Your task to perform on an android device: check android version Image 0: 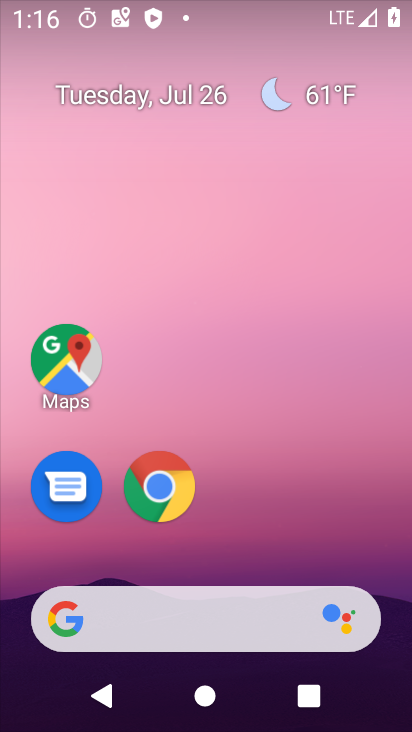
Step 0: press home button
Your task to perform on an android device: check android version Image 1: 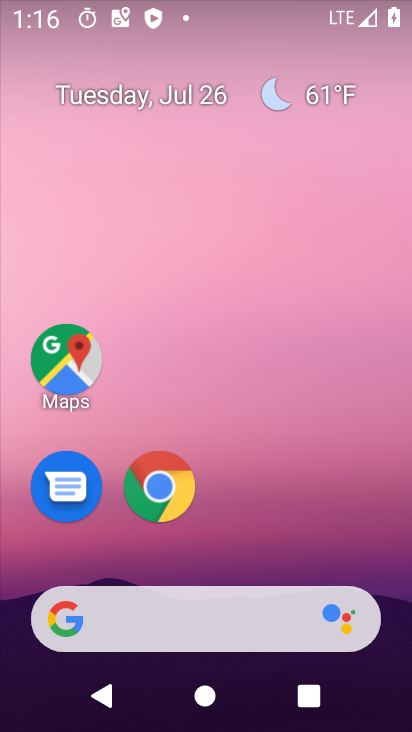
Step 1: drag from (329, 535) to (327, 110)
Your task to perform on an android device: check android version Image 2: 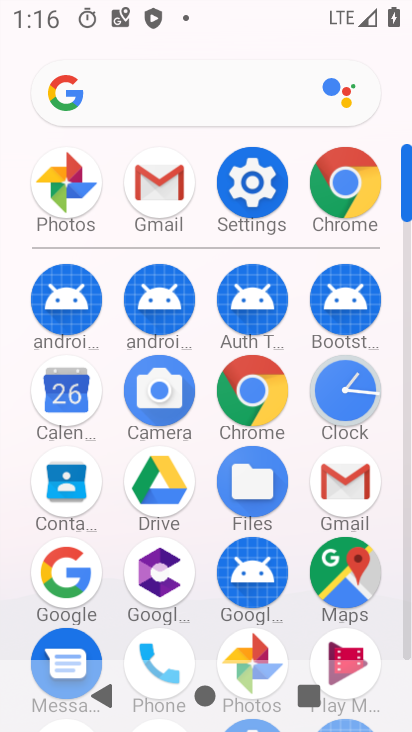
Step 2: click (262, 189)
Your task to perform on an android device: check android version Image 3: 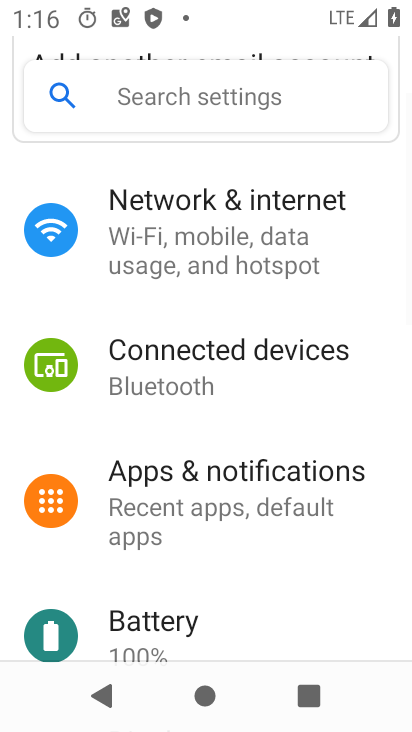
Step 3: drag from (324, 512) to (321, 370)
Your task to perform on an android device: check android version Image 4: 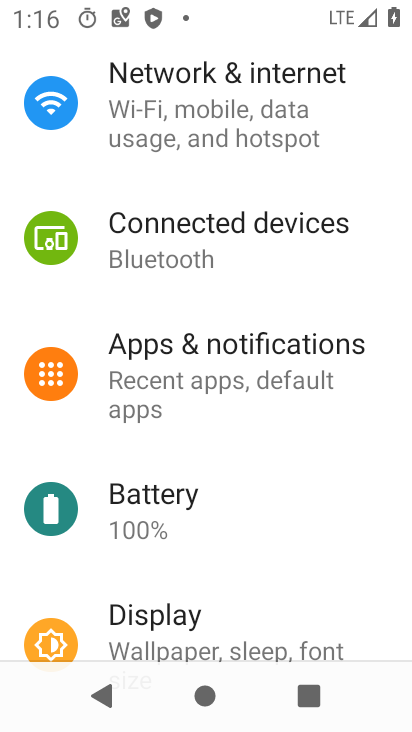
Step 4: drag from (321, 509) to (321, 379)
Your task to perform on an android device: check android version Image 5: 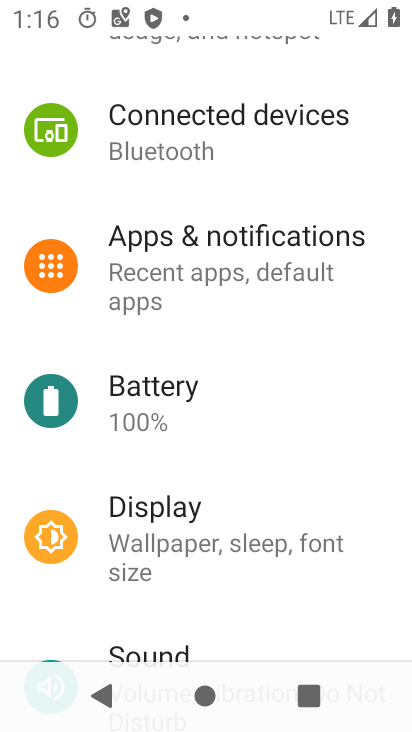
Step 5: drag from (321, 569) to (319, 446)
Your task to perform on an android device: check android version Image 6: 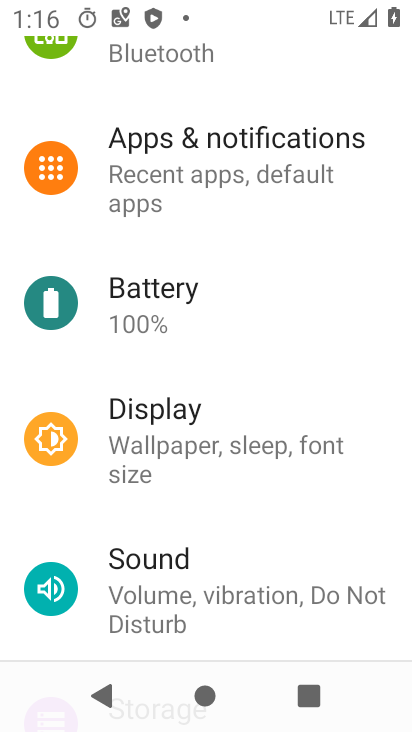
Step 6: drag from (318, 583) to (317, 386)
Your task to perform on an android device: check android version Image 7: 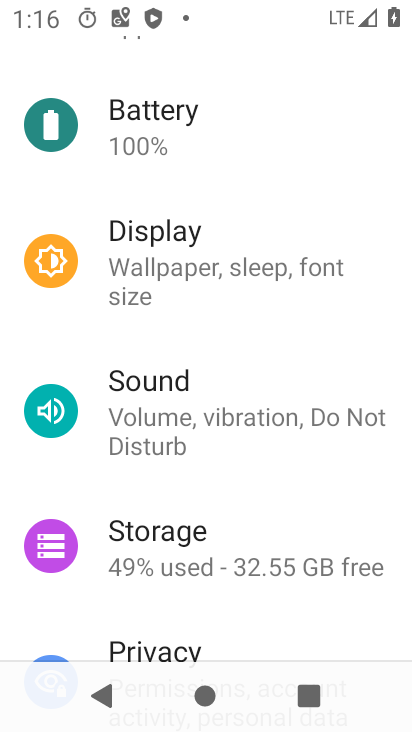
Step 7: drag from (324, 560) to (325, 467)
Your task to perform on an android device: check android version Image 8: 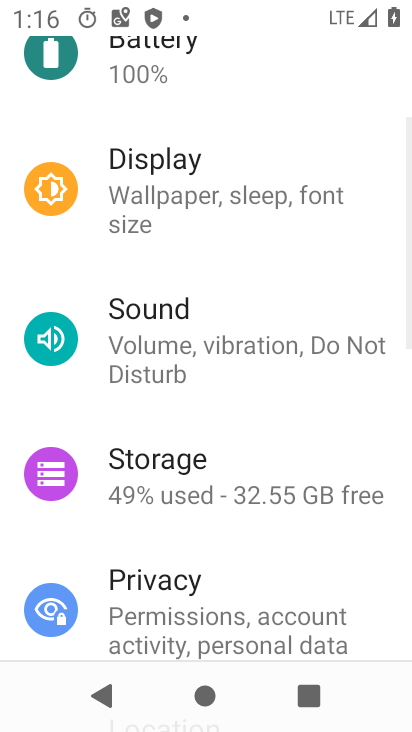
Step 8: drag from (322, 566) to (317, 471)
Your task to perform on an android device: check android version Image 9: 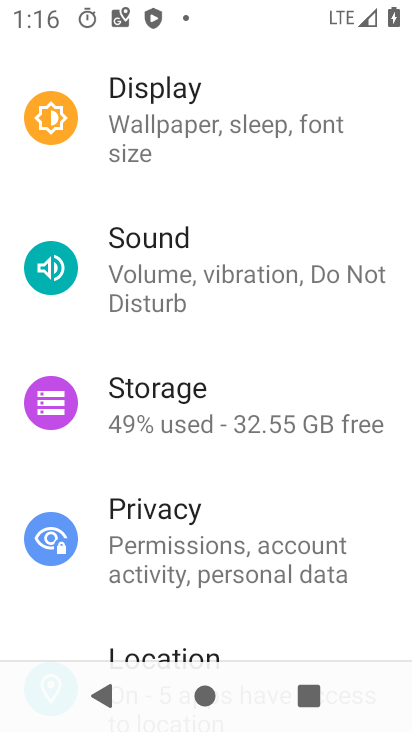
Step 9: drag from (335, 603) to (334, 484)
Your task to perform on an android device: check android version Image 10: 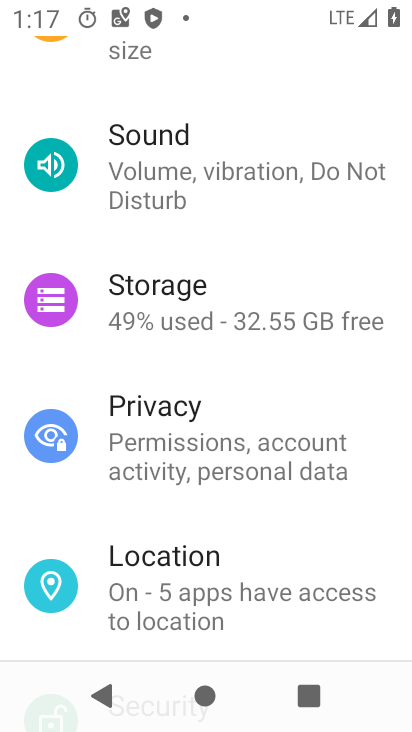
Step 10: drag from (320, 592) to (320, 493)
Your task to perform on an android device: check android version Image 11: 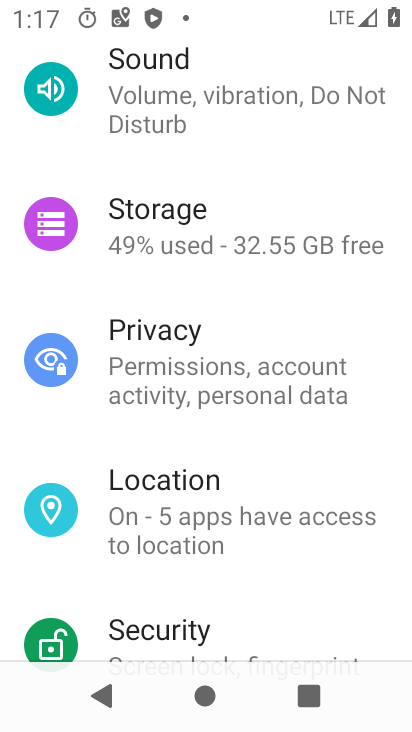
Step 11: drag from (326, 603) to (326, 476)
Your task to perform on an android device: check android version Image 12: 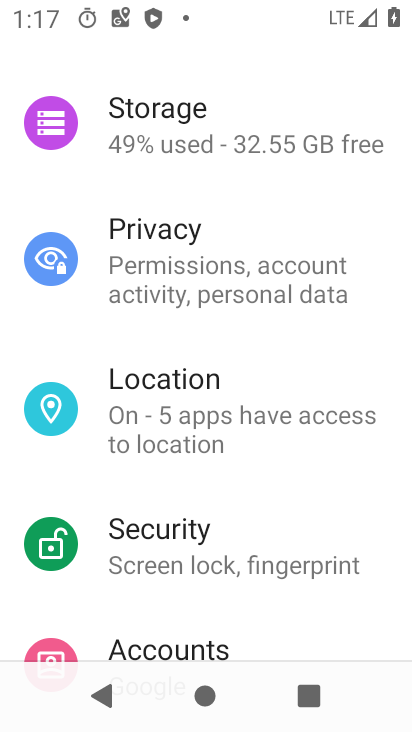
Step 12: drag from (324, 571) to (321, 438)
Your task to perform on an android device: check android version Image 13: 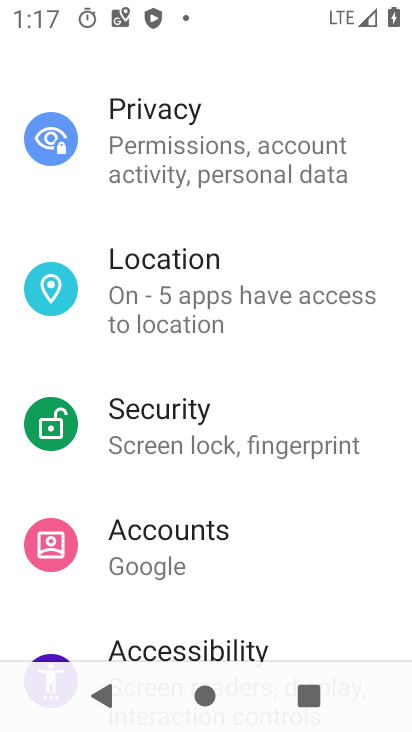
Step 13: drag from (331, 593) to (333, 432)
Your task to perform on an android device: check android version Image 14: 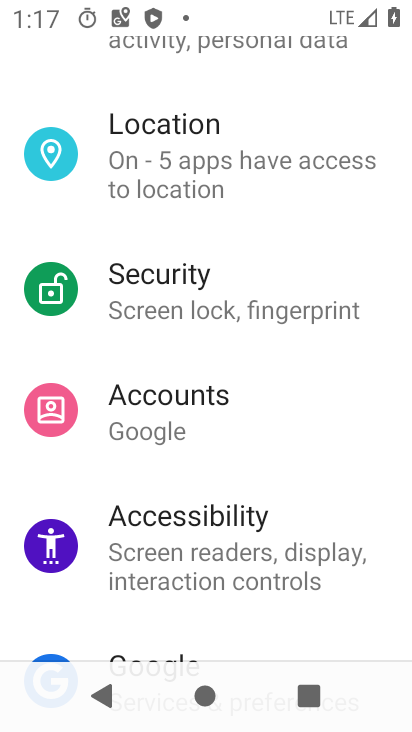
Step 14: drag from (336, 586) to (336, 450)
Your task to perform on an android device: check android version Image 15: 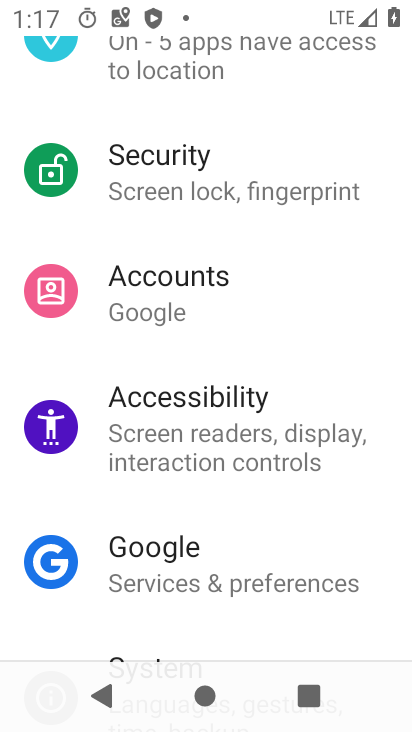
Step 15: drag from (334, 273) to (340, 391)
Your task to perform on an android device: check android version Image 16: 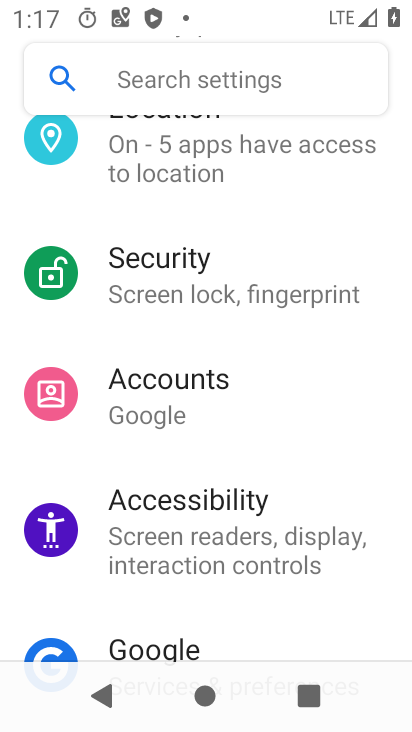
Step 16: drag from (359, 221) to (350, 400)
Your task to perform on an android device: check android version Image 17: 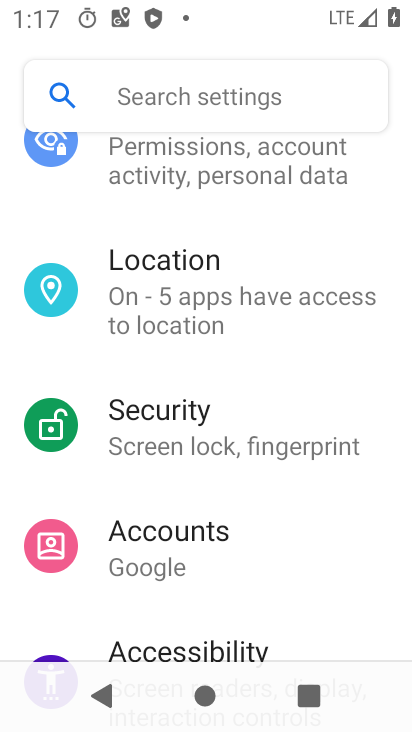
Step 17: drag from (375, 168) to (359, 375)
Your task to perform on an android device: check android version Image 18: 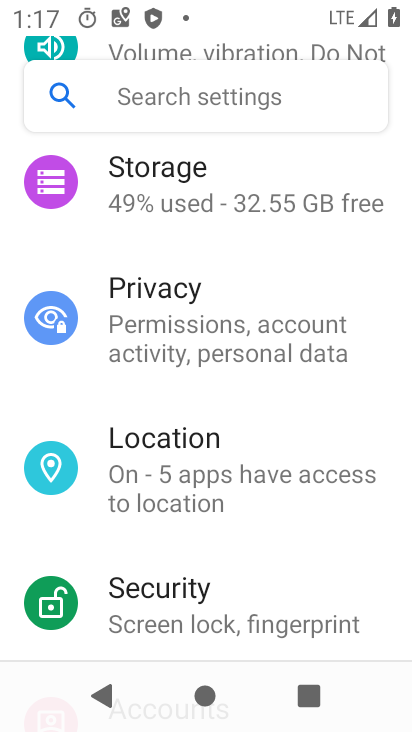
Step 18: drag from (350, 169) to (359, 361)
Your task to perform on an android device: check android version Image 19: 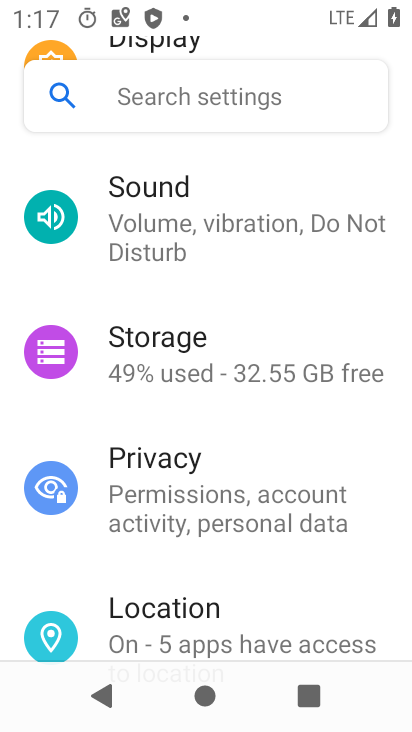
Step 19: drag from (330, 180) to (330, 339)
Your task to perform on an android device: check android version Image 20: 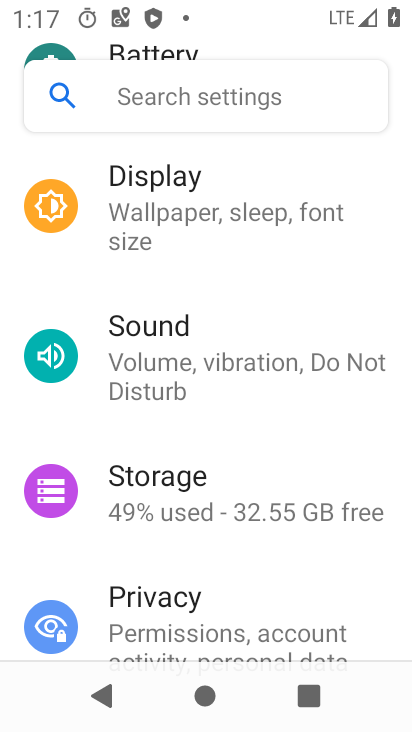
Step 20: drag from (336, 154) to (344, 335)
Your task to perform on an android device: check android version Image 21: 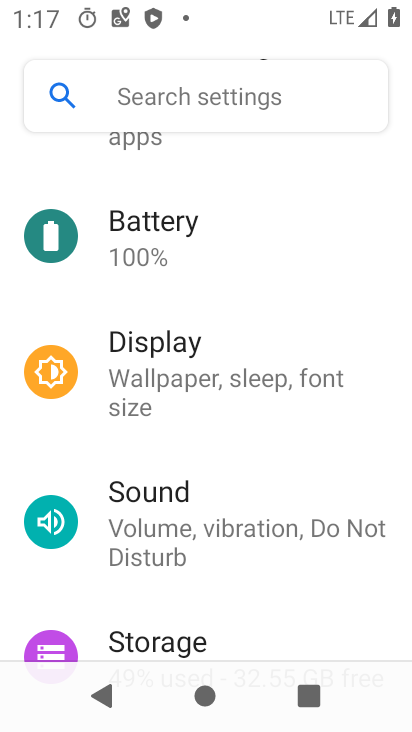
Step 21: drag from (304, 185) to (320, 320)
Your task to perform on an android device: check android version Image 22: 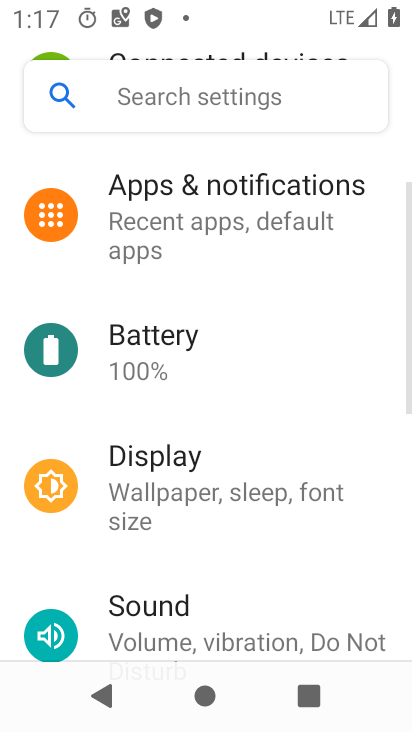
Step 22: drag from (305, 456) to (321, 289)
Your task to perform on an android device: check android version Image 23: 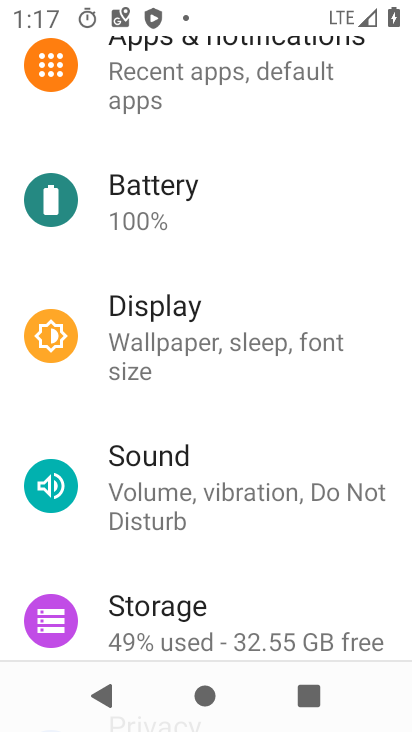
Step 23: drag from (290, 486) to (295, 317)
Your task to perform on an android device: check android version Image 24: 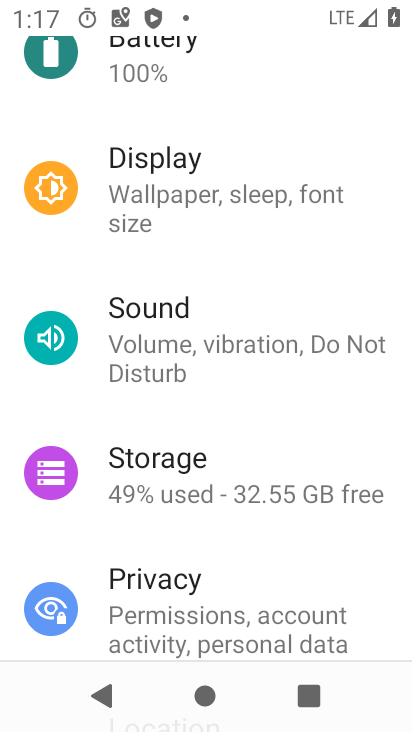
Step 24: drag from (308, 485) to (313, 377)
Your task to perform on an android device: check android version Image 25: 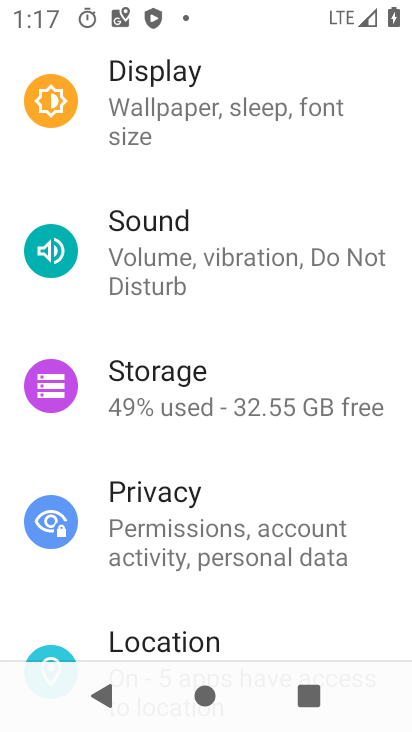
Step 25: drag from (313, 569) to (318, 449)
Your task to perform on an android device: check android version Image 26: 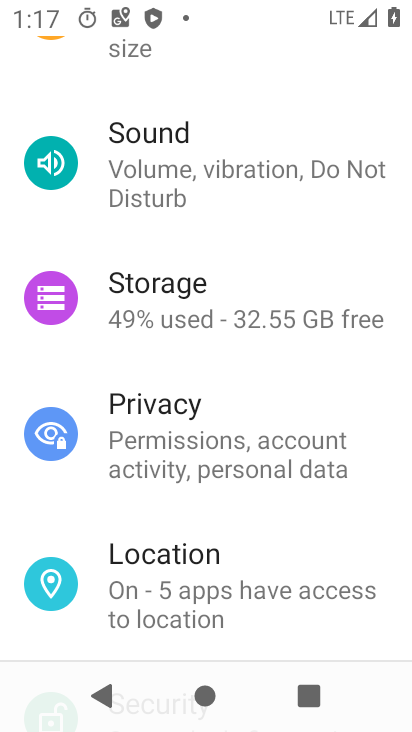
Step 26: drag from (302, 596) to (305, 404)
Your task to perform on an android device: check android version Image 27: 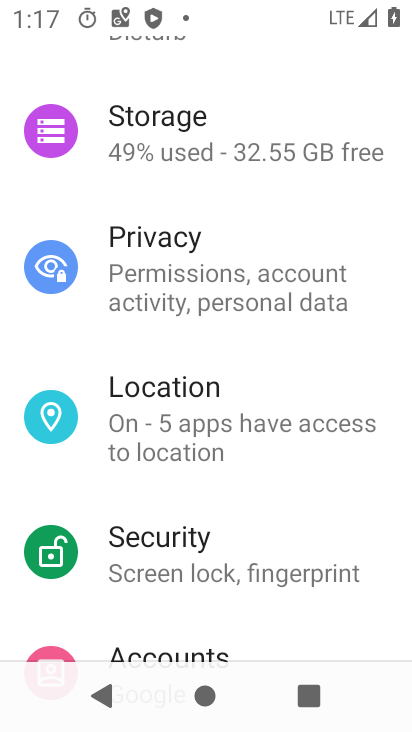
Step 27: drag from (305, 483) to (314, 336)
Your task to perform on an android device: check android version Image 28: 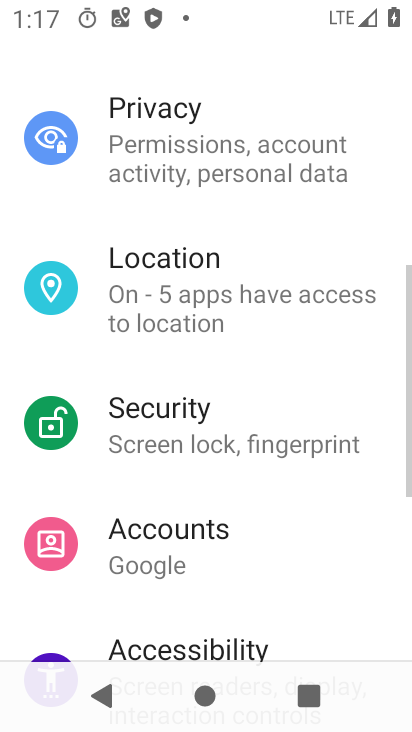
Step 28: drag from (299, 544) to (305, 330)
Your task to perform on an android device: check android version Image 29: 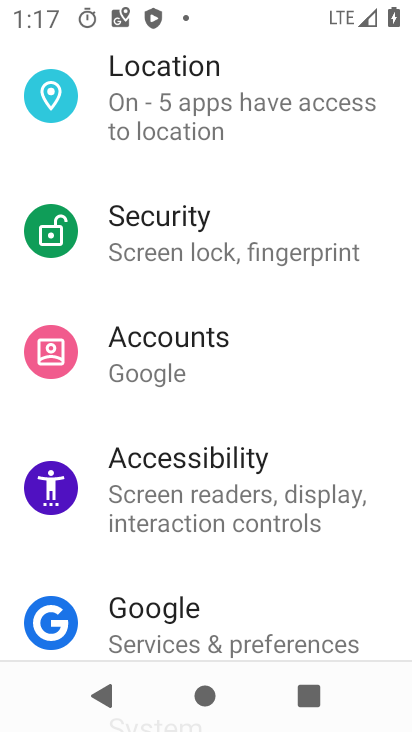
Step 29: drag from (303, 562) to (317, 310)
Your task to perform on an android device: check android version Image 30: 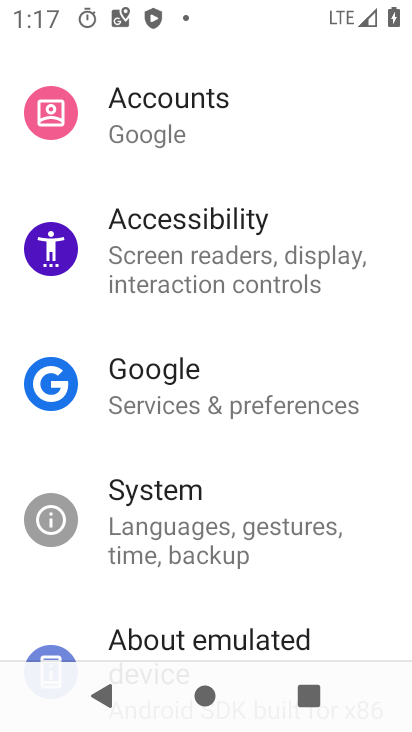
Step 30: click (304, 520)
Your task to perform on an android device: check android version Image 31: 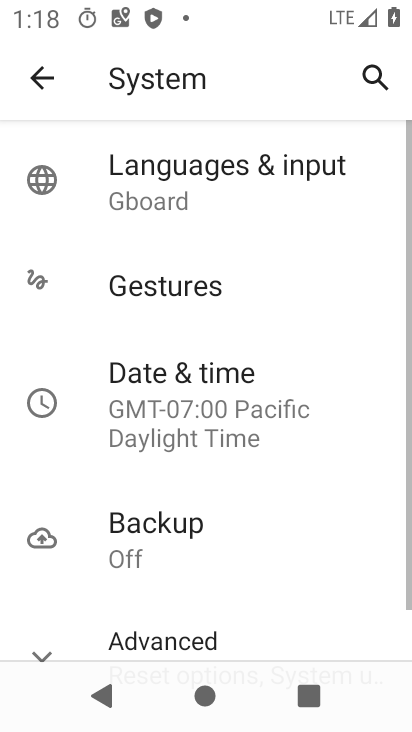
Step 31: drag from (298, 562) to (302, 369)
Your task to perform on an android device: check android version Image 32: 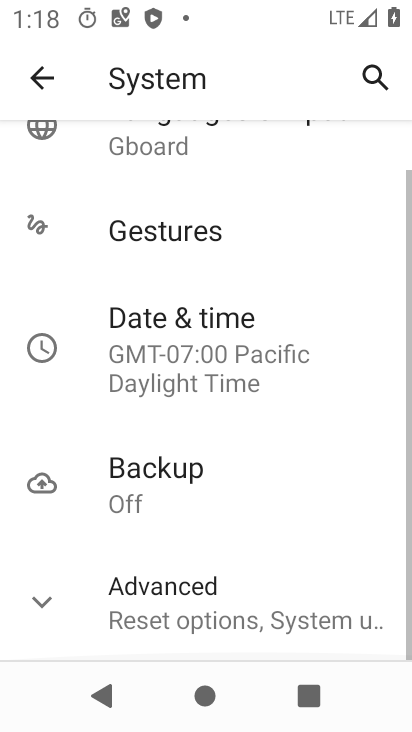
Step 32: click (288, 585)
Your task to perform on an android device: check android version Image 33: 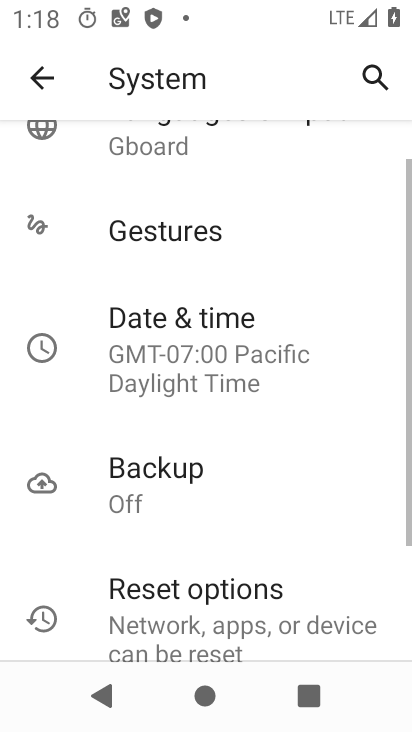
Step 33: drag from (291, 574) to (302, 390)
Your task to perform on an android device: check android version Image 34: 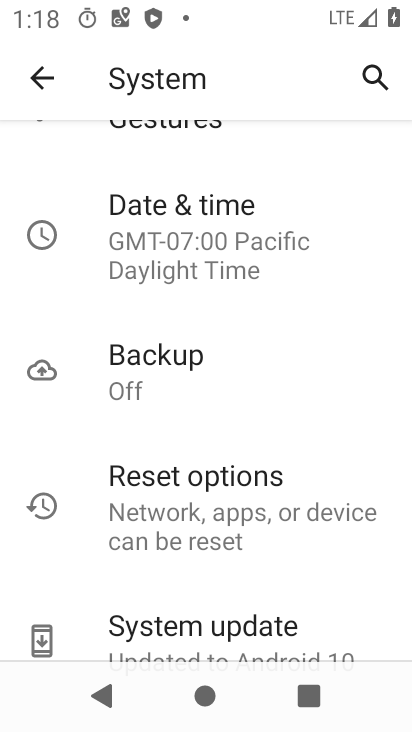
Step 34: drag from (278, 575) to (286, 381)
Your task to perform on an android device: check android version Image 35: 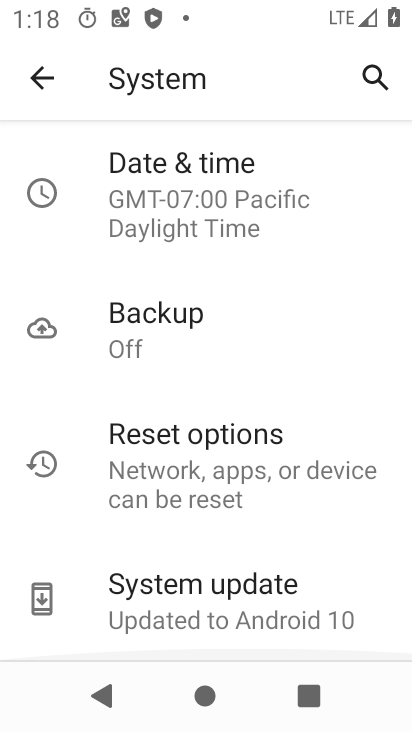
Step 35: click (283, 574)
Your task to perform on an android device: check android version Image 36: 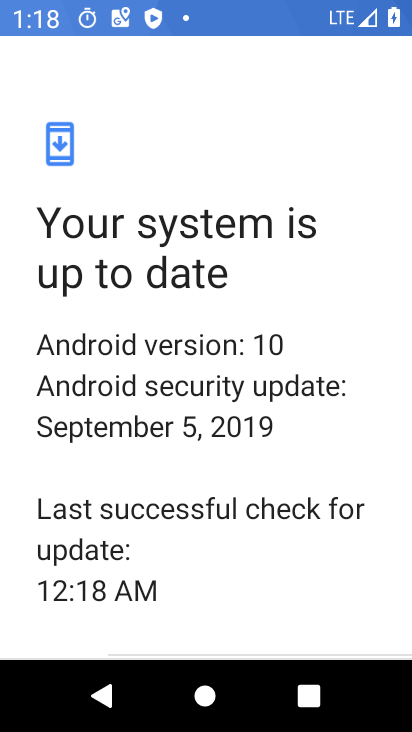
Step 36: task complete